Your task to perform on an android device: Search for sushi restaurants on Maps Image 0: 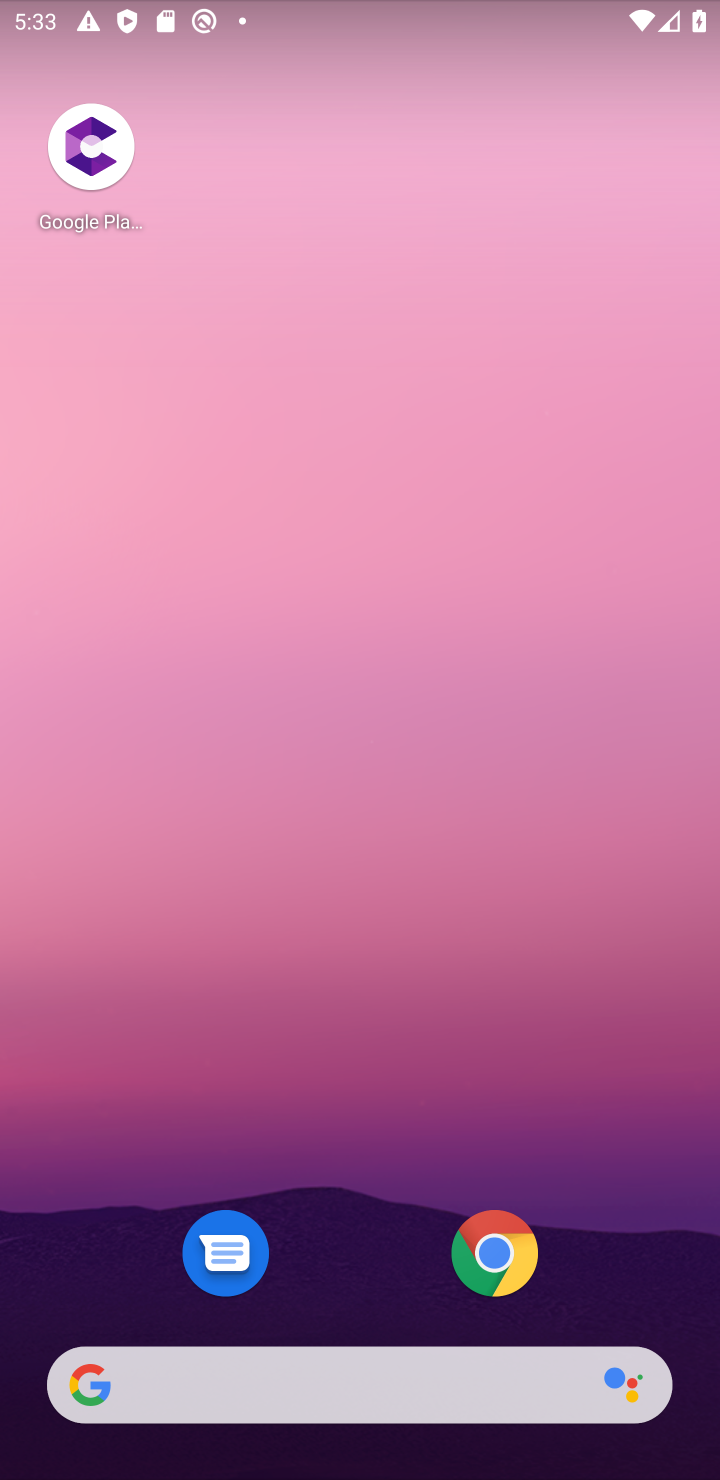
Step 0: press home button
Your task to perform on an android device: Search for sushi restaurants on Maps Image 1: 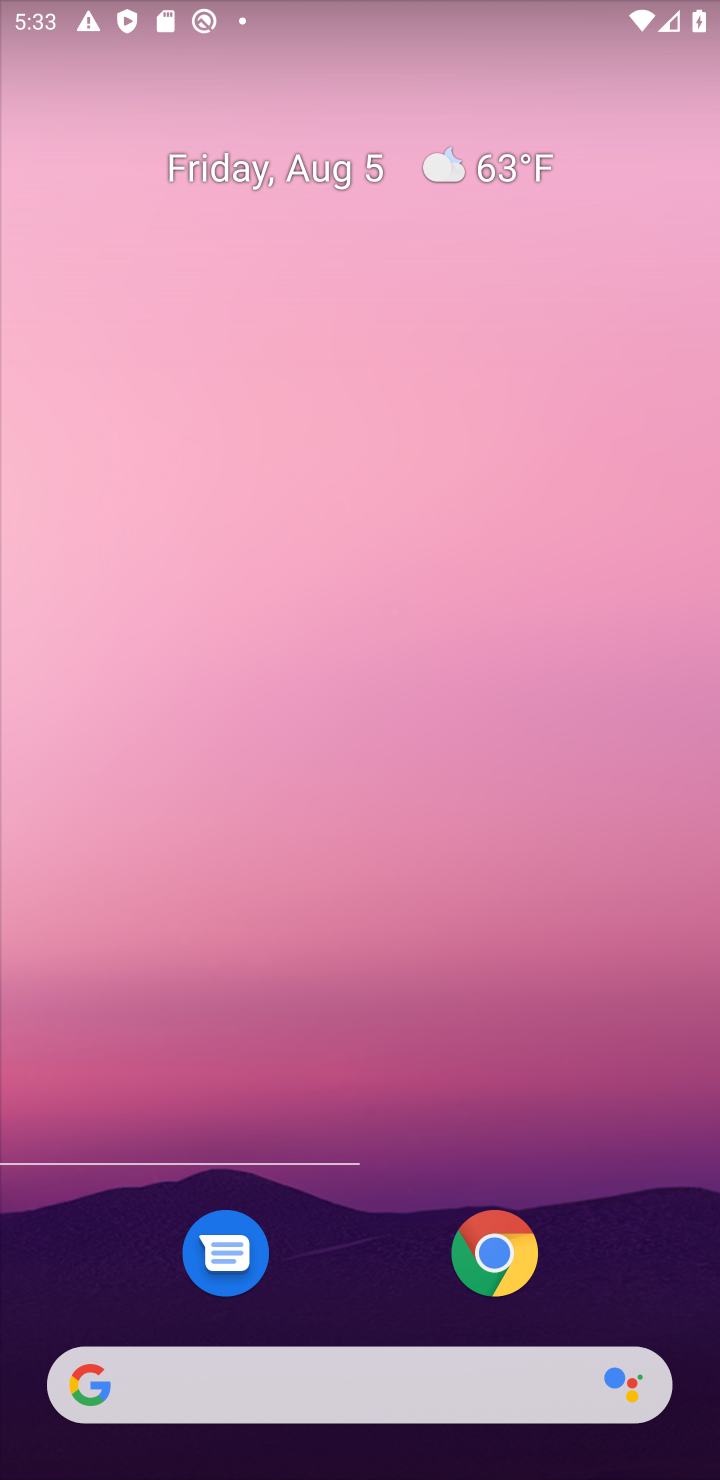
Step 1: drag from (305, 1062) to (307, 249)
Your task to perform on an android device: Search for sushi restaurants on Maps Image 2: 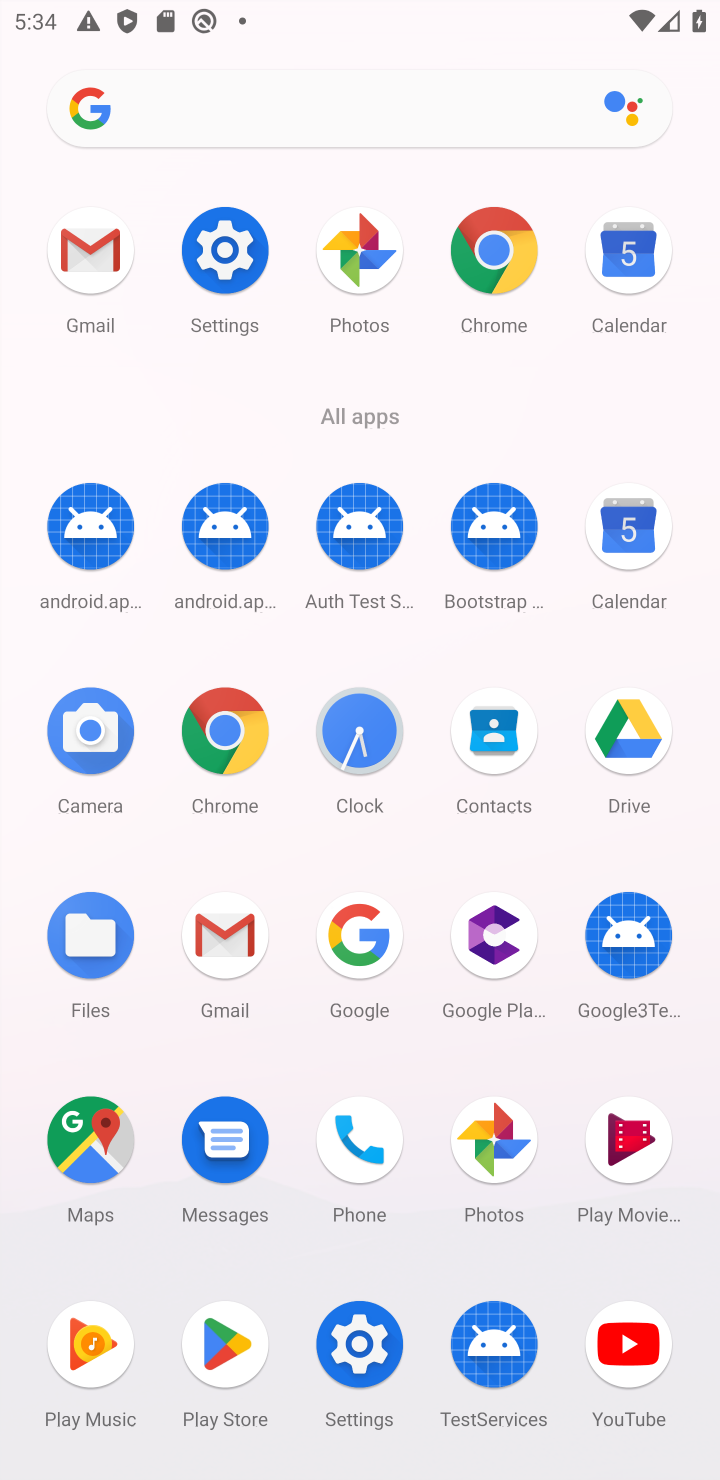
Step 2: click (104, 1142)
Your task to perform on an android device: Search for sushi restaurants on Maps Image 3: 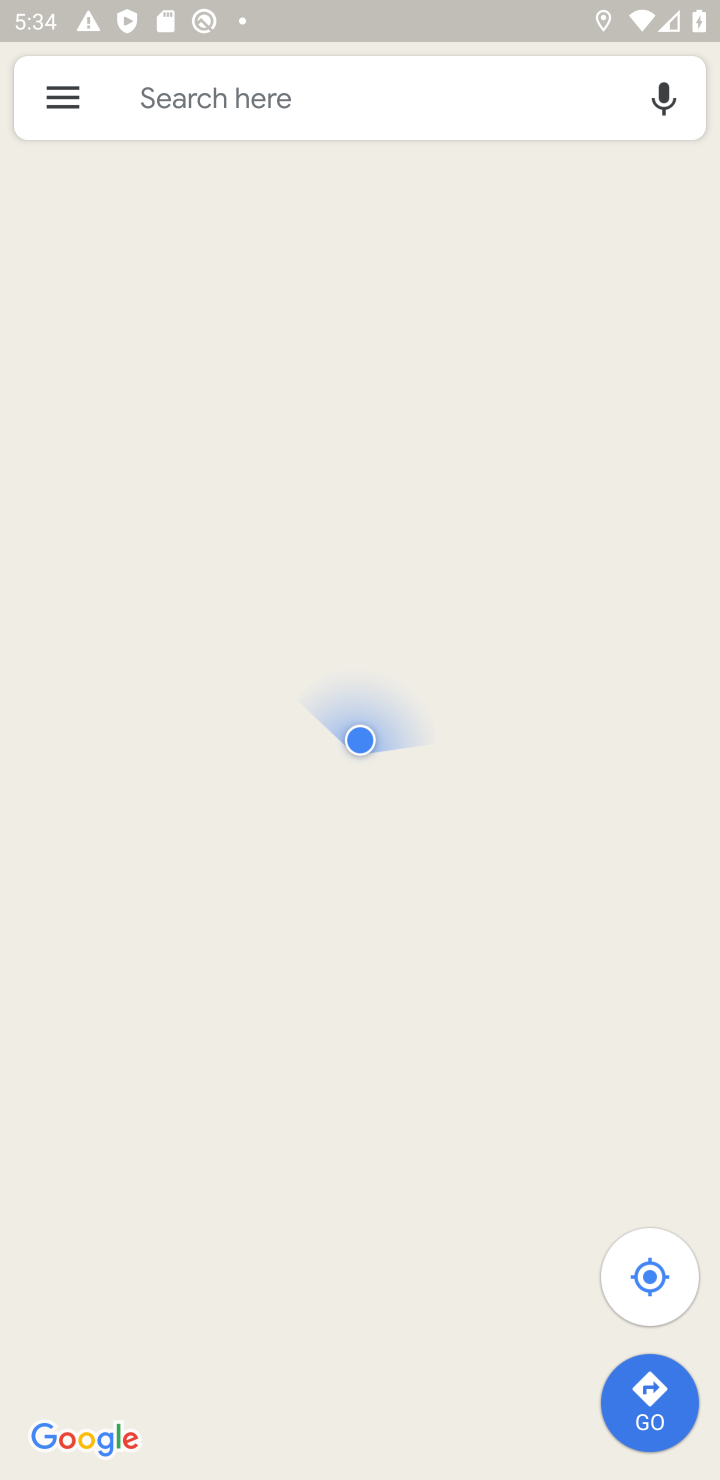
Step 3: click (313, 99)
Your task to perform on an android device: Search for sushi restaurants on Maps Image 4: 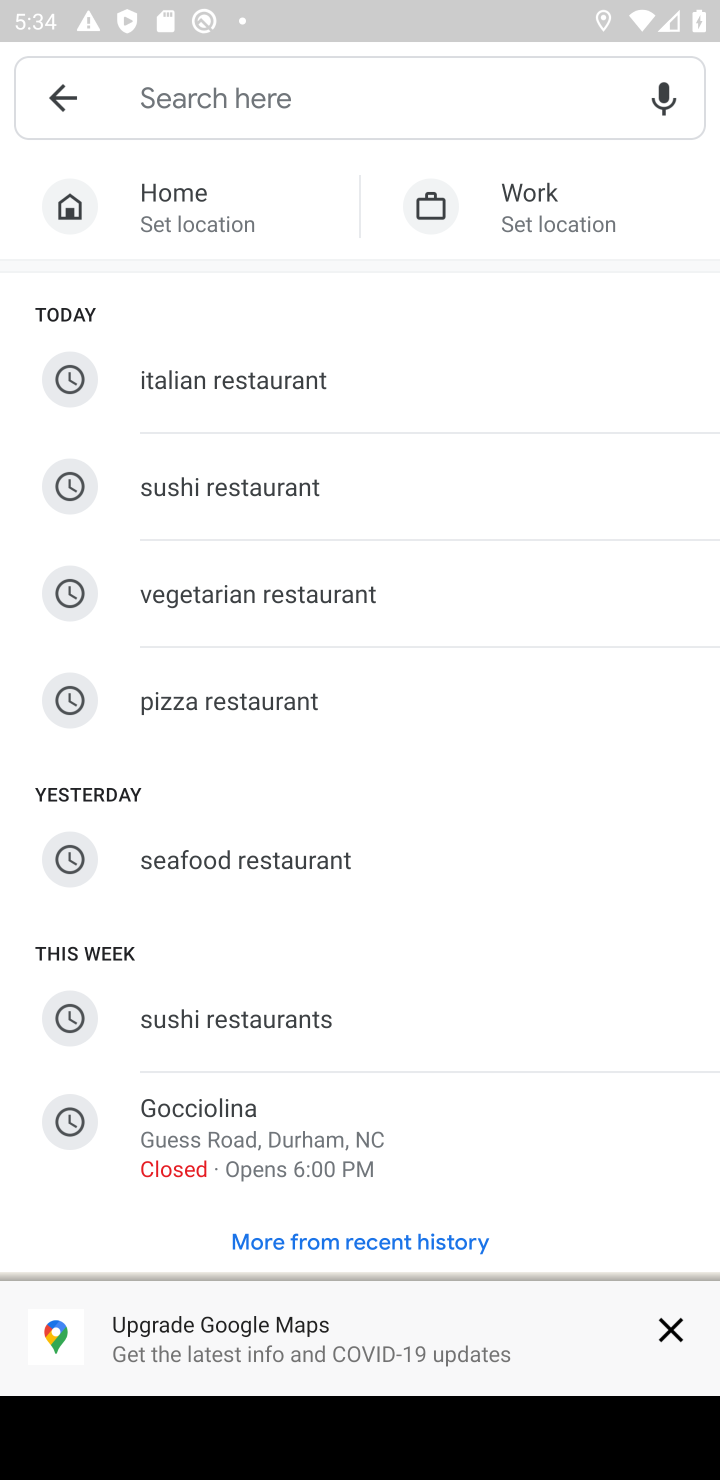
Step 4: type "sushi restaurants"
Your task to perform on an android device: Search for sushi restaurants on Maps Image 5: 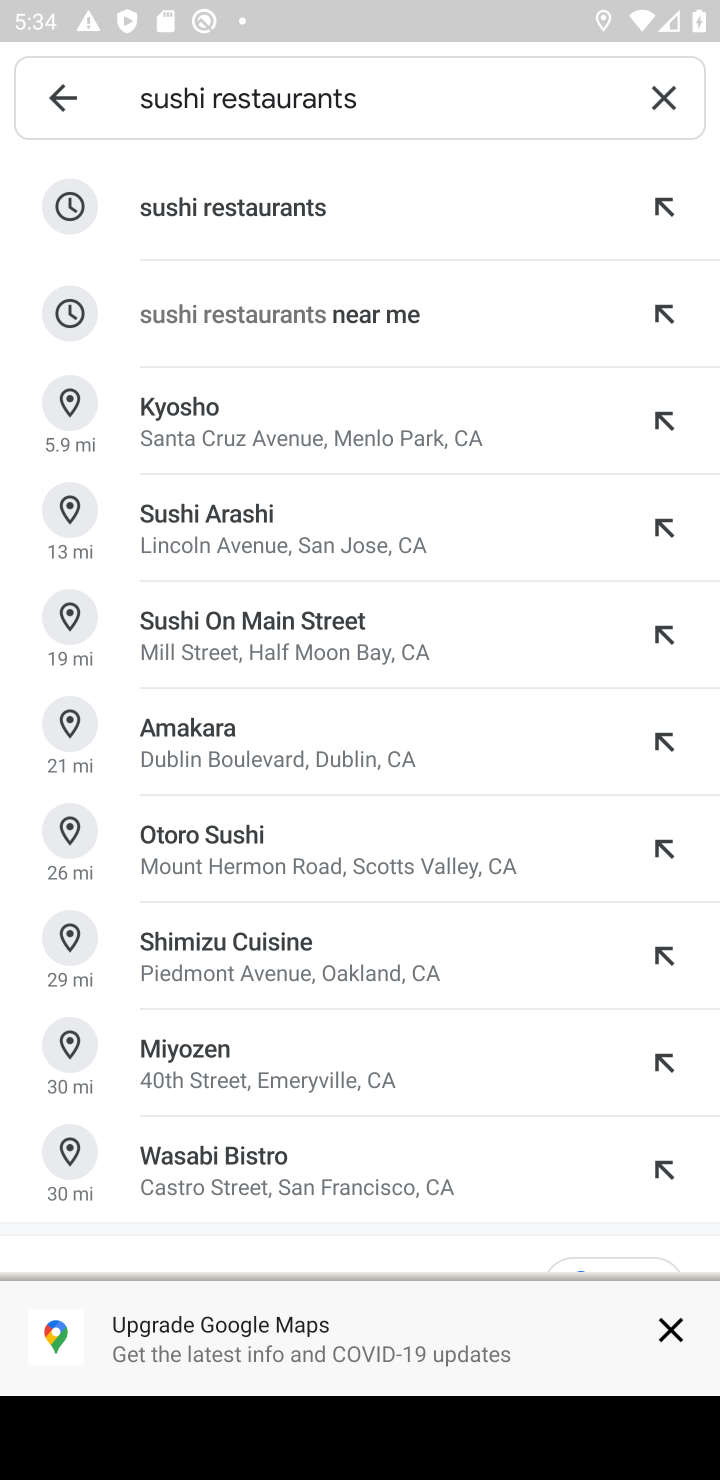
Step 5: click (184, 188)
Your task to perform on an android device: Search for sushi restaurants on Maps Image 6: 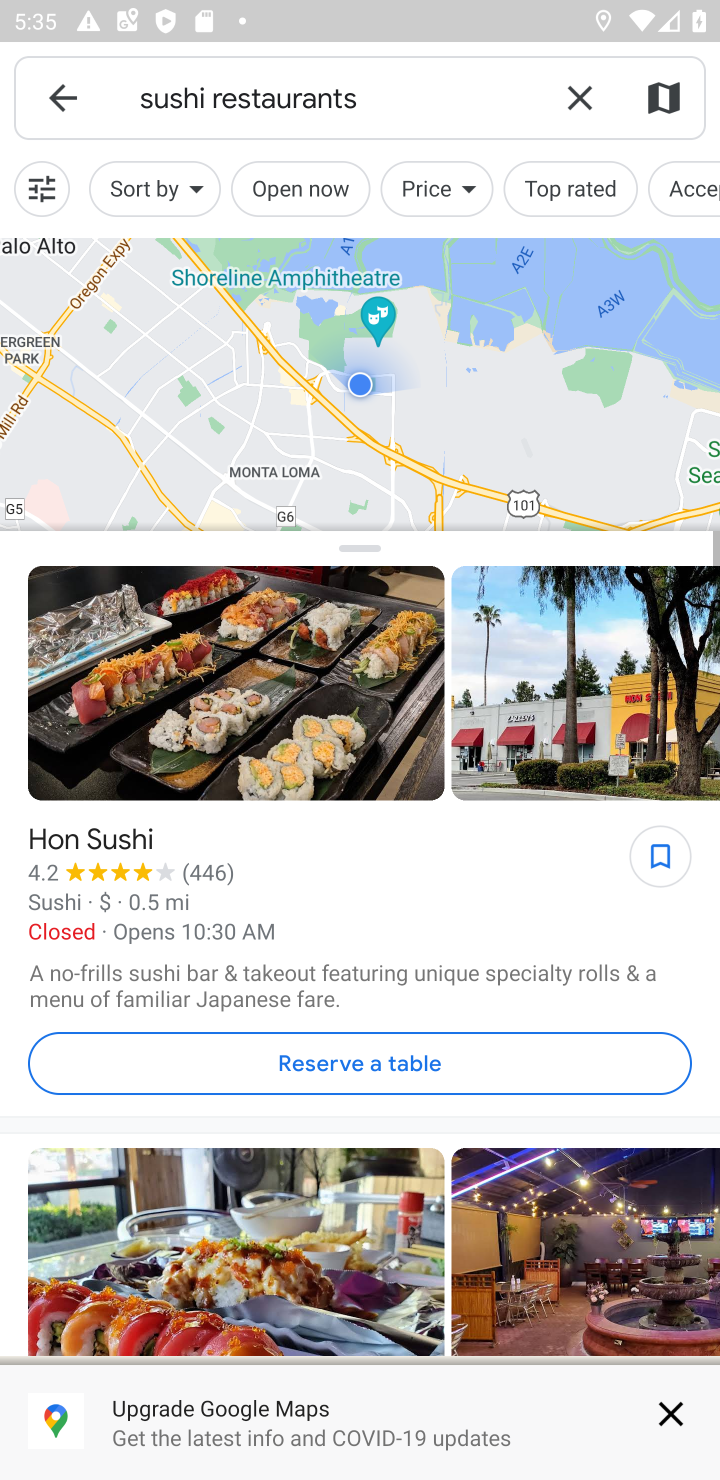
Step 6: task complete